Your task to perform on an android device: Open calendar and show me the first week of next month Image 0: 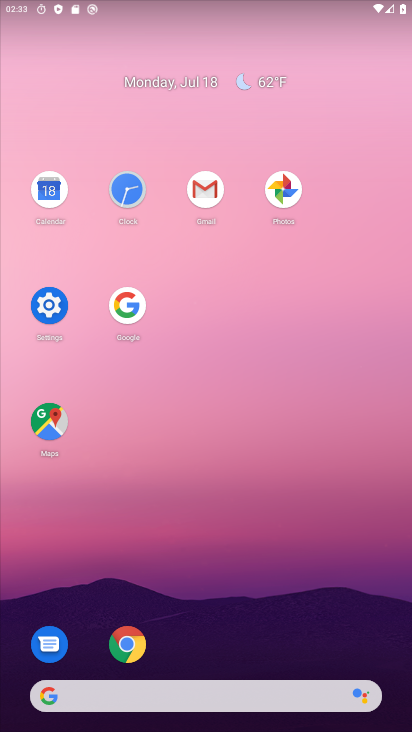
Step 0: click (61, 187)
Your task to perform on an android device: Open calendar and show me the first week of next month Image 1: 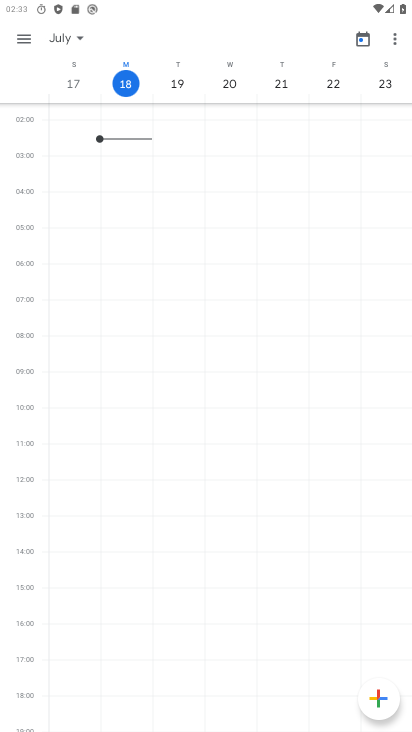
Step 1: click (65, 50)
Your task to perform on an android device: Open calendar and show me the first week of next month Image 2: 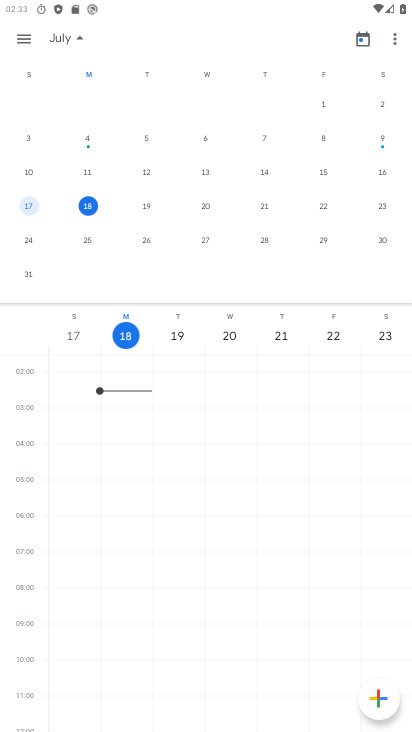
Step 2: drag from (390, 187) to (0, 168)
Your task to perform on an android device: Open calendar and show me the first week of next month Image 3: 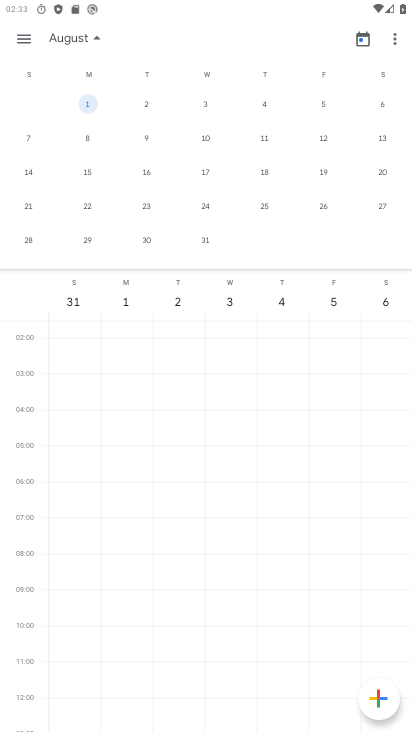
Step 3: click (23, 18)
Your task to perform on an android device: Open calendar and show me the first week of next month Image 4: 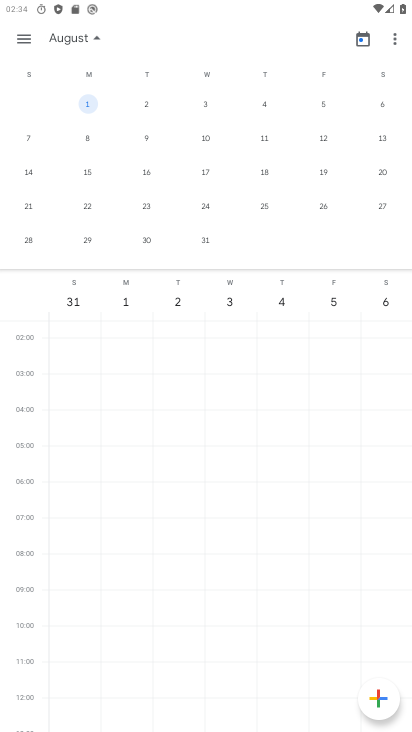
Step 4: click (32, 56)
Your task to perform on an android device: Open calendar and show me the first week of next month Image 5: 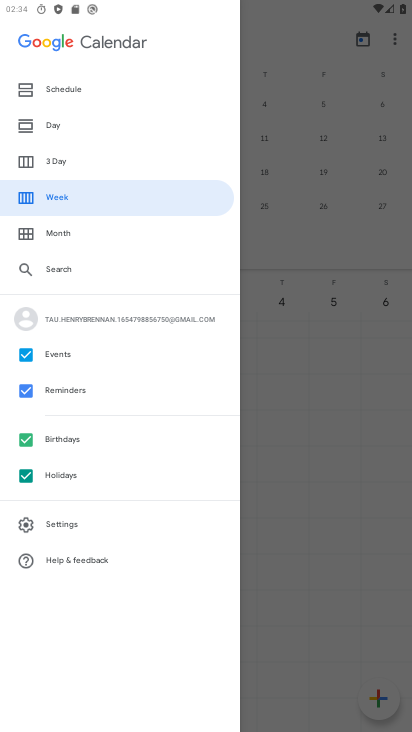
Step 5: click (114, 198)
Your task to perform on an android device: Open calendar and show me the first week of next month Image 6: 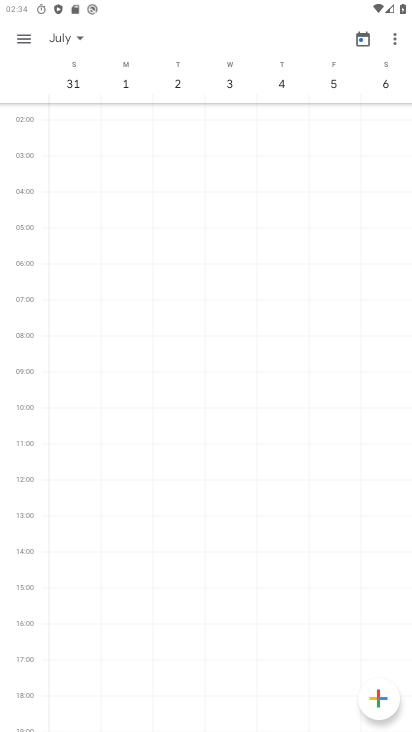
Step 6: task complete